Your task to perform on an android device: Go to ESPN.com Image 0: 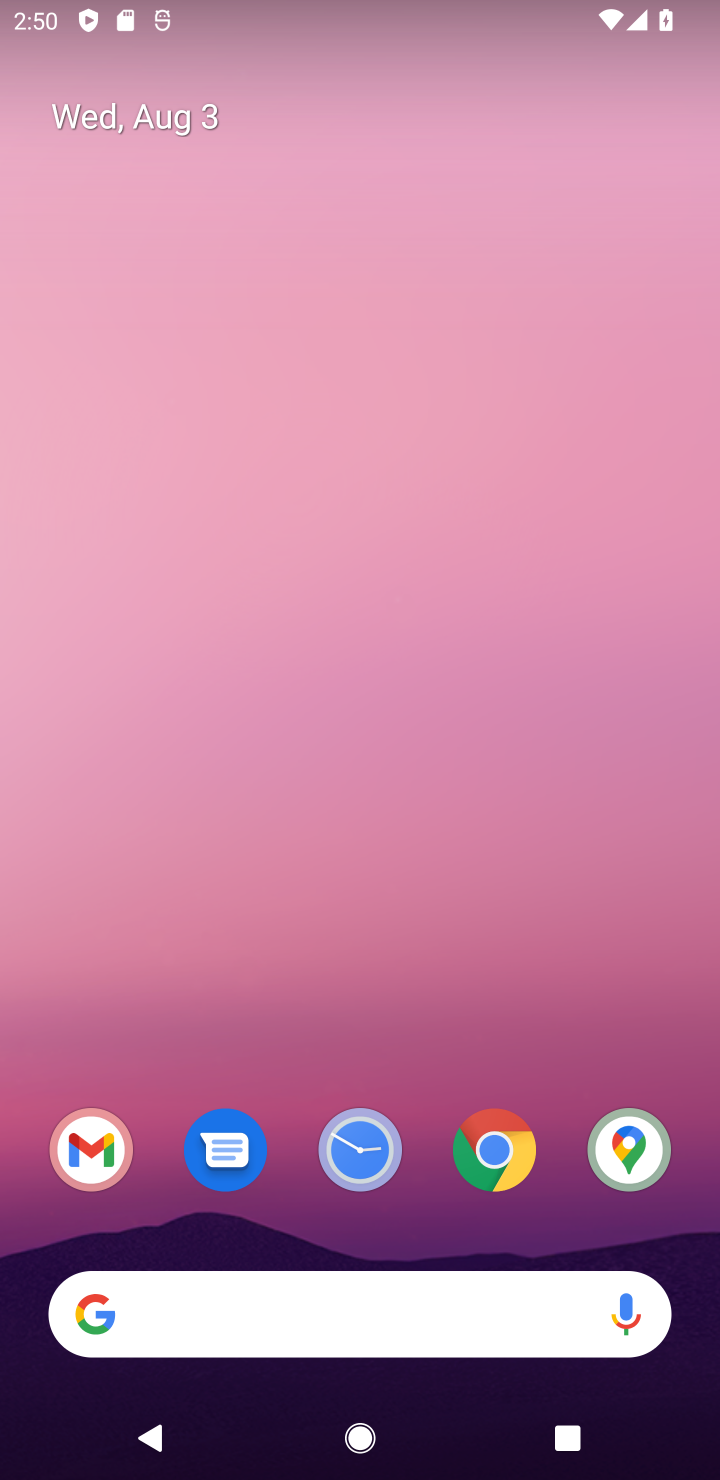
Step 0: click (503, 1168)
Your task to perform on an android device: Go to ESPN.com Image 1: 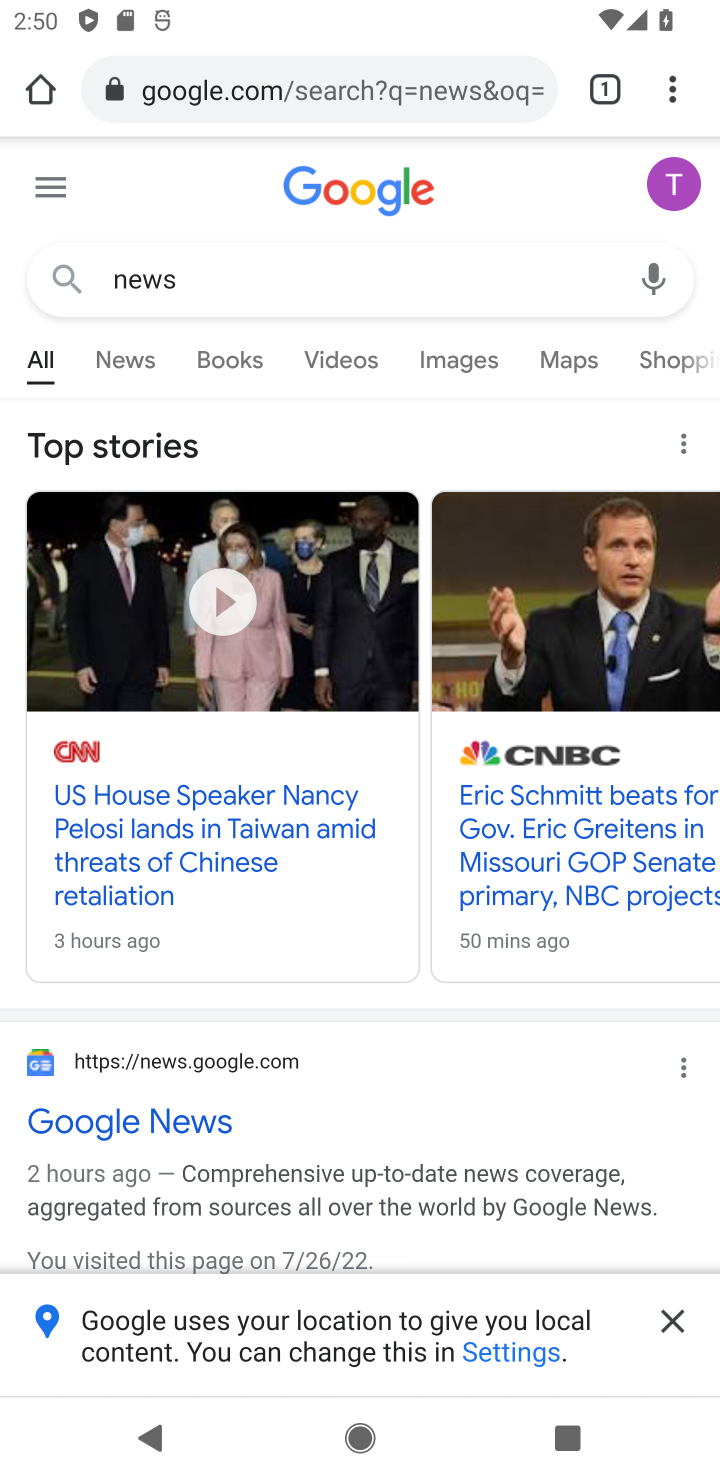
Step 1: click (402, 89)
Your task to perform on an android device: Go to ESPN.com Image 2: 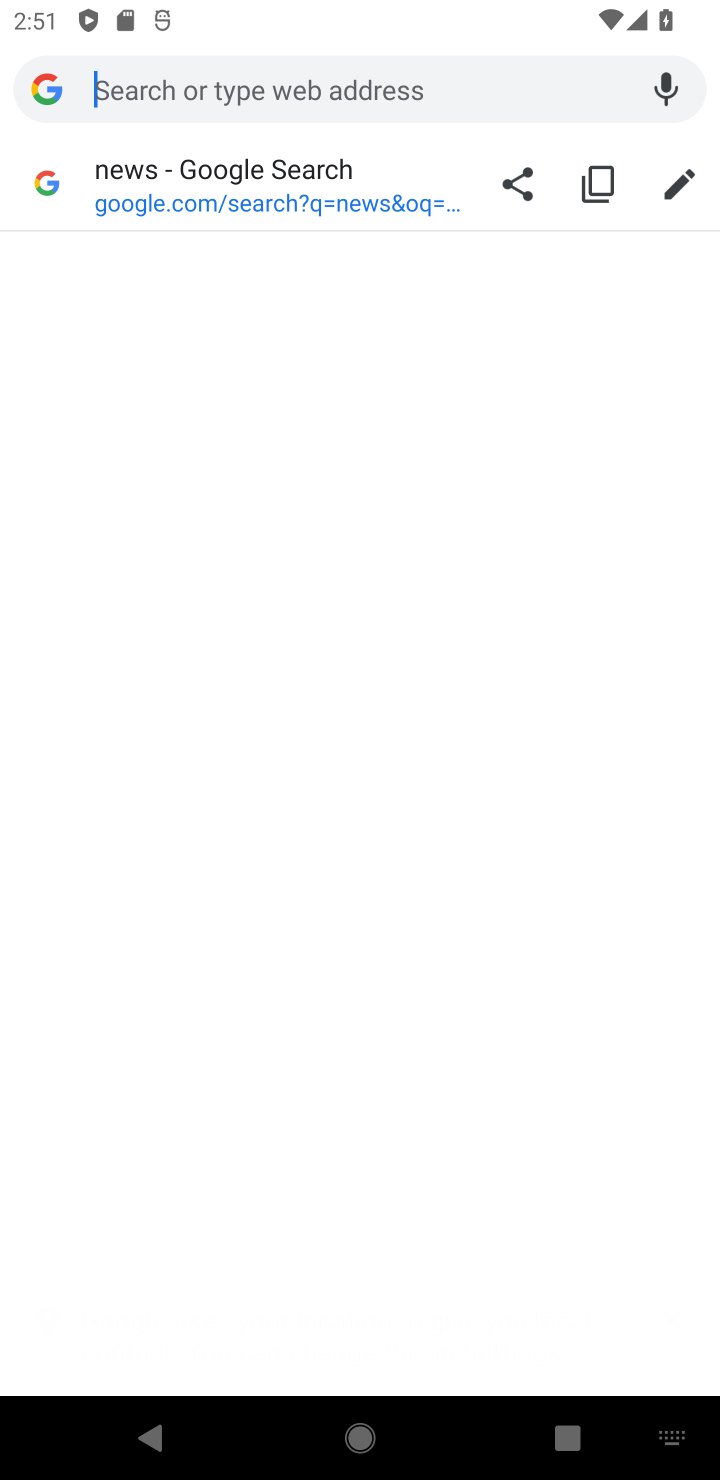
Step 2: type "espn.com"
Your task to perform on an android device: Go to ESPN.com Image 3: 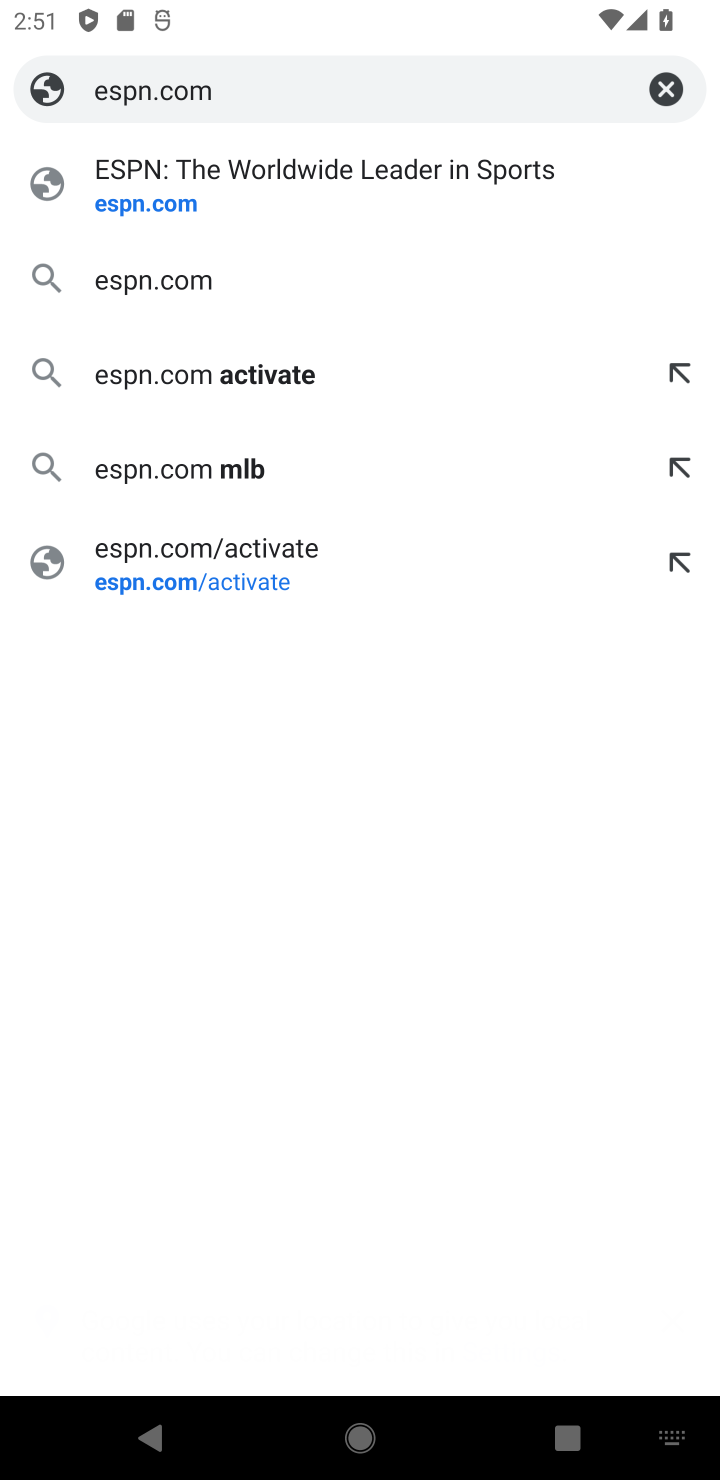
Step 3: click (184, 166)
Your task to perform on an android device: Go to ESPN.com Image 4: 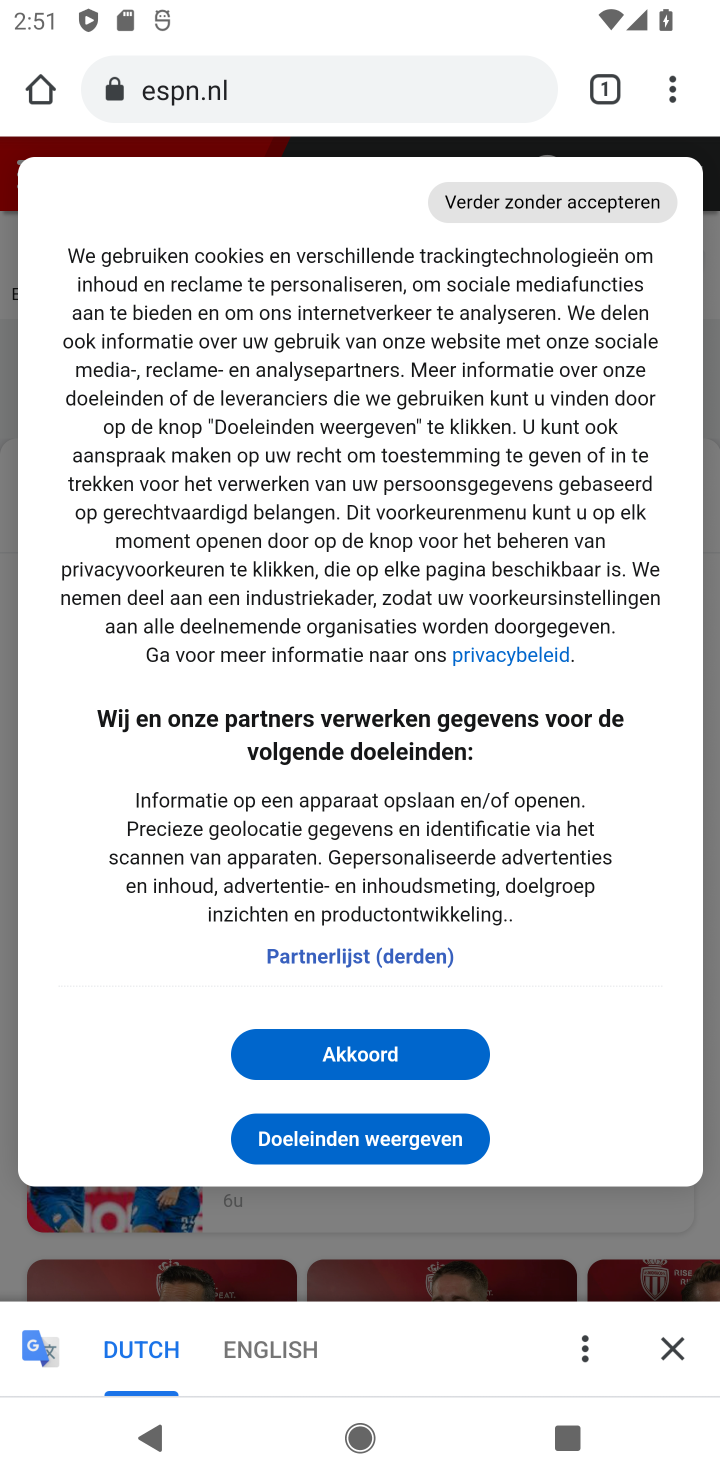
Step 4: task complete